Your task to perform on an android device: install app "WhatsApp Messenger" Image 0: 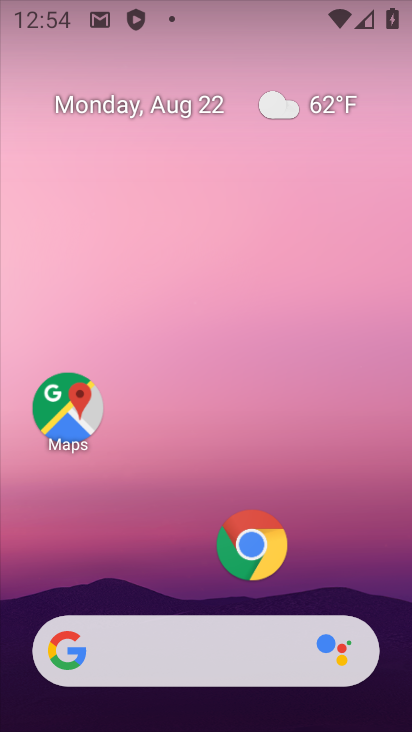
Step 0: drag from (168, 592) to (261, 81)
Your task to perform on an android device: install app "WhatsApp Messenger" Image 1: 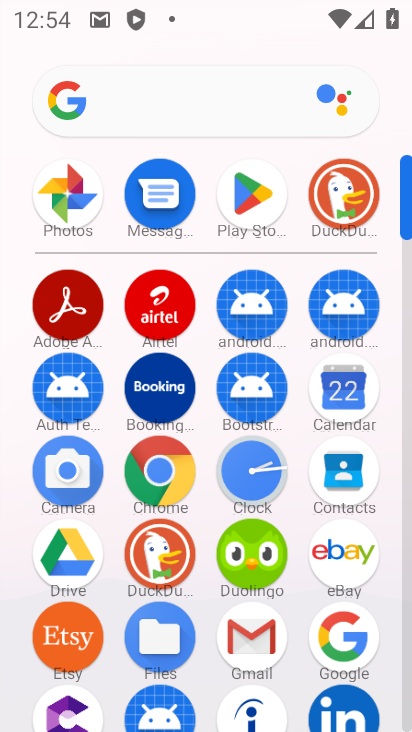
Step 1: click (260, 205)
Your task to perform on an android device: install app "WhatsApp Messenger" Image 2: 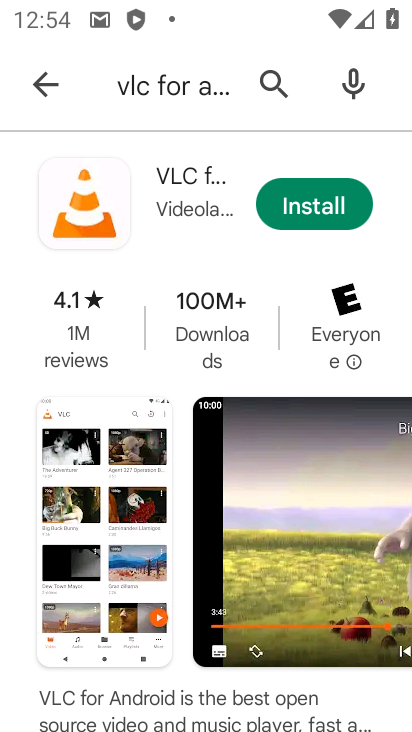
Step 2: click (274, 61)
Your task to perform on an android device: install app "WhatsApp Messenger" Image 3: 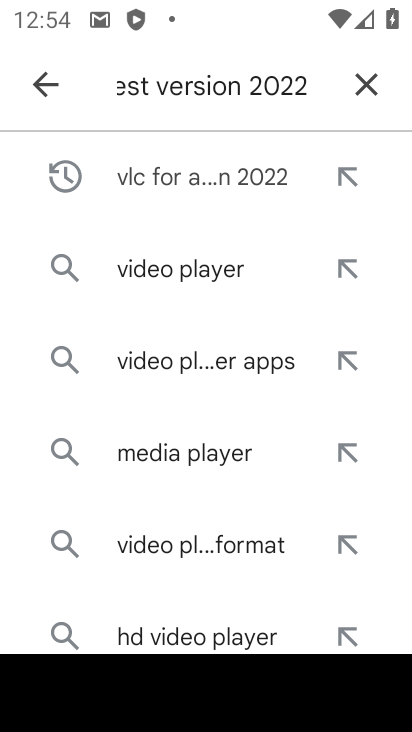
Step 3: click (350, 80)
Your task to perform on an android device: install app "WhatsApp Messenger" Image 4: 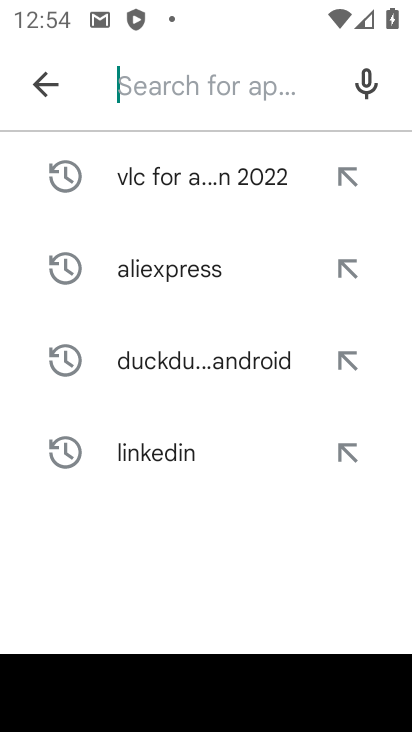
Step 4: click (160, 64)
Your task to perform on an android device: install app "WhatsApp Messenger" Image 5: 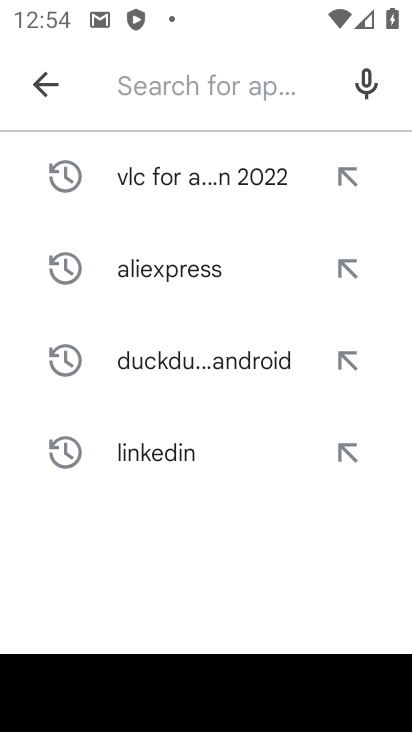
Step 5: click (164, 558)
Your task to perform on an android device: install app "WhatsApp Messenger" Image 6: 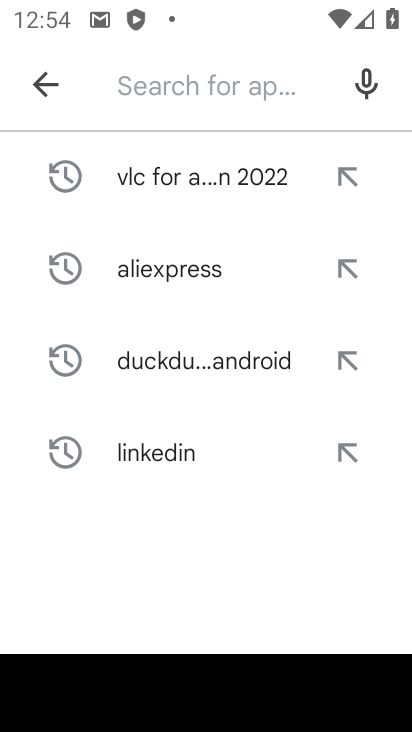
Step 6: type "WhatsApp Messenger"
Your task to perform on an android device: install app "WhatsApp Messenger" Image 7: 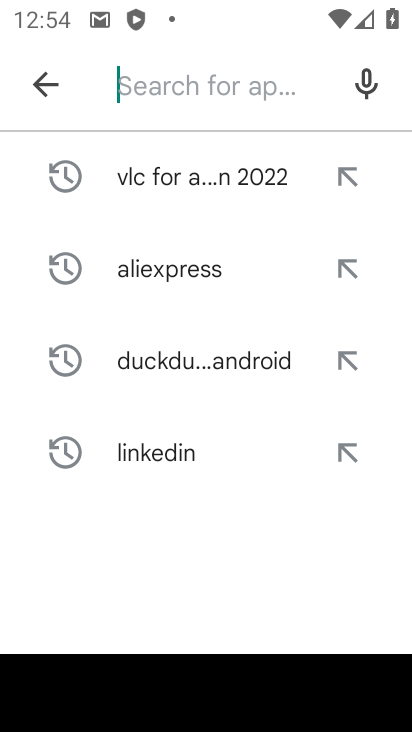
Step 7: click (164, 558)
Your task to perform on an android device: install app "WhatsApp Messenger" Image 8: 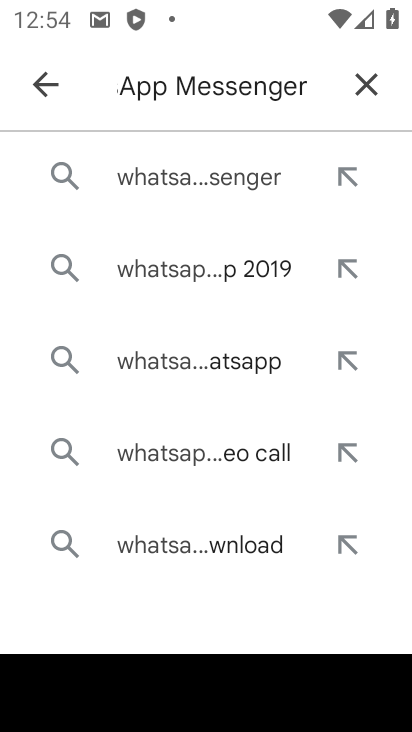
Step 8: click (156, 178)
Your task to perform on an android device: install app "WhatsApp Messenger" Image 9: 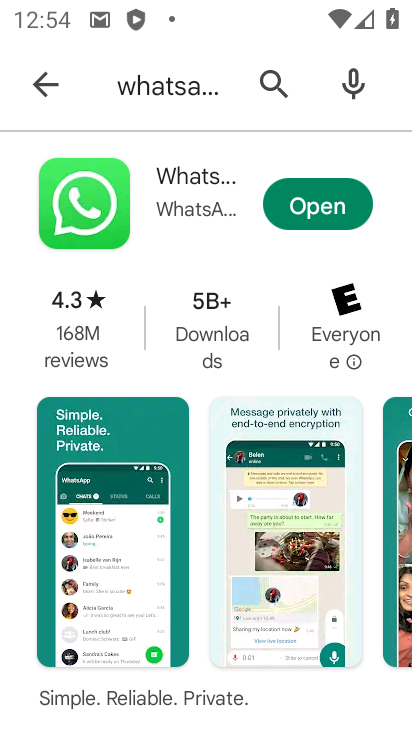
Step 9: task complete